Your task to perform on an android device: Go to sound settings Image 0: 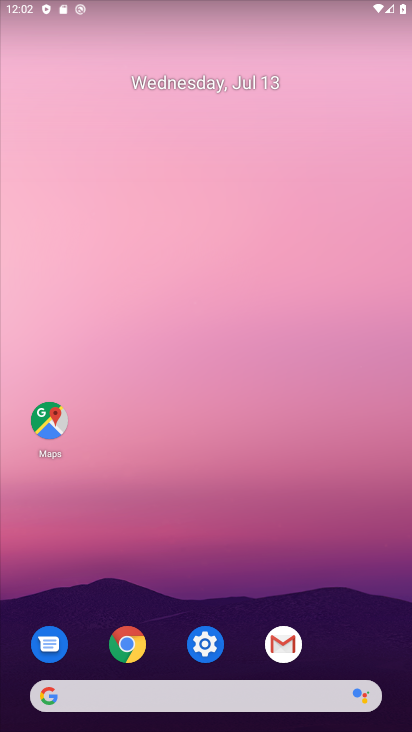
Step 0: click (213, 662)
Your task to perform on an android device: Go to sound settings Image 1: 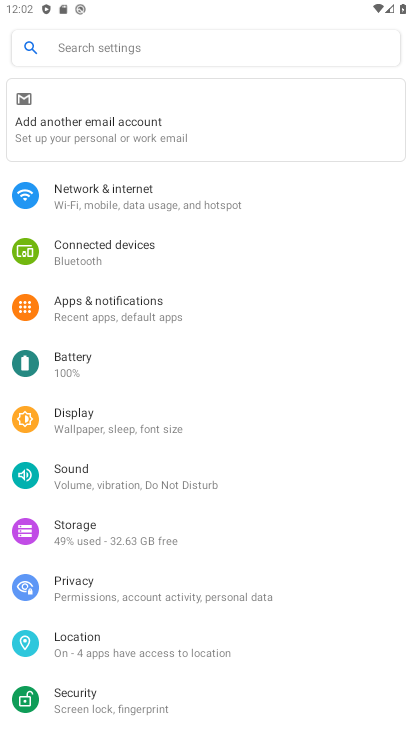
Step 1: click (110, 479)
Your task to perform on an android device: Go to sound settings Image 2: 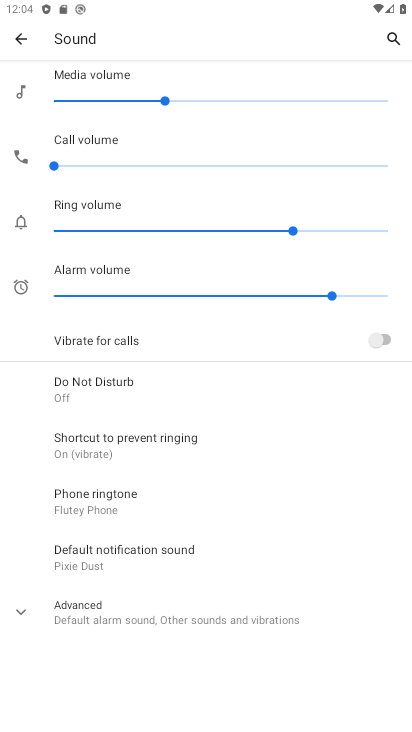
Step 2: task complete